Your task to perform on an android device: check google app version Image 0: 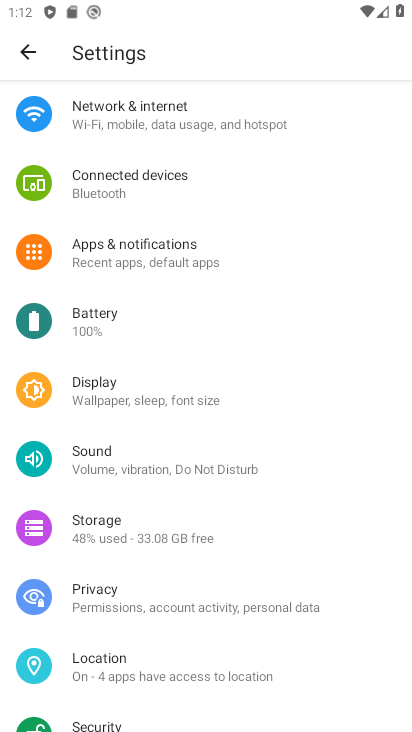
Step 0: press home button
Your task to perform on an android device: check google app version Image 1: 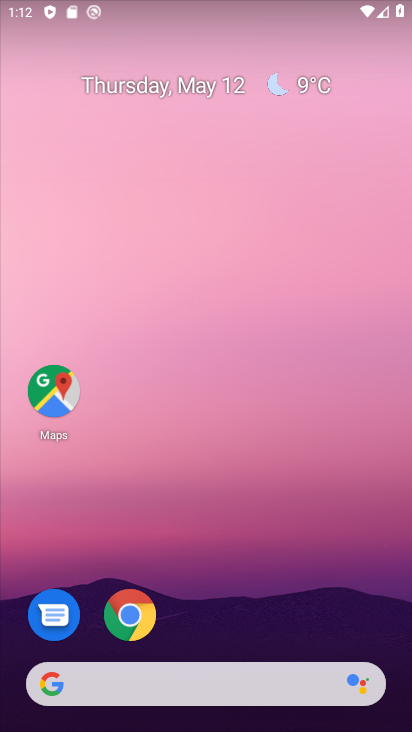
Step 1: drag from (193, 678) to (56, 10)
Your task to perform on an android device: check google app version Image 2: 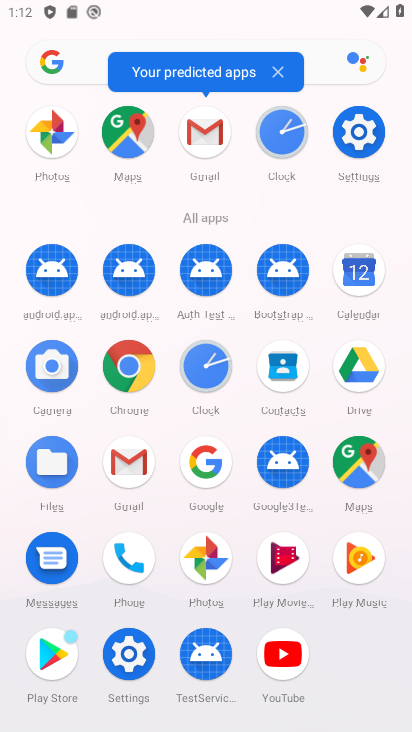
Step 2: click (218, 482)
Your task to perform on an android device: check google app version Image 3: 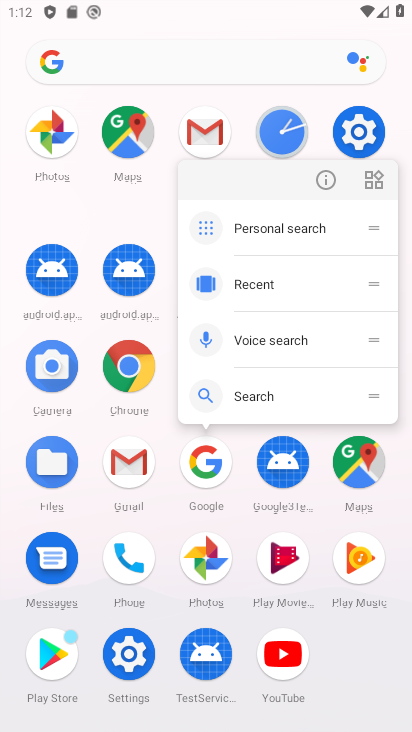
Step 3: click (320, 180)
Your task to perform on an android device: check google app version Image 4: 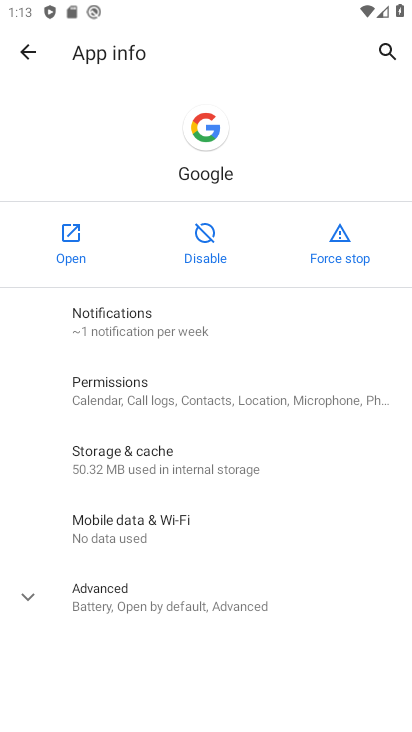
Step 4: click (139, 599)
Your task to perform on an android device: check google app version Image 5: 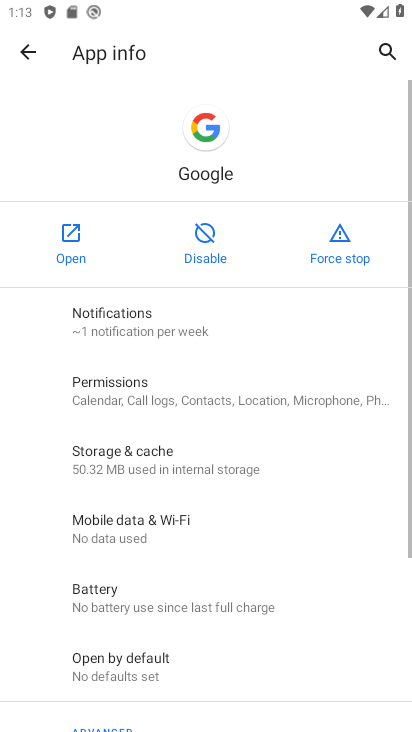
Step 5: task complete